Your task to perform on an android device: Go to accessibility settings Image 0: 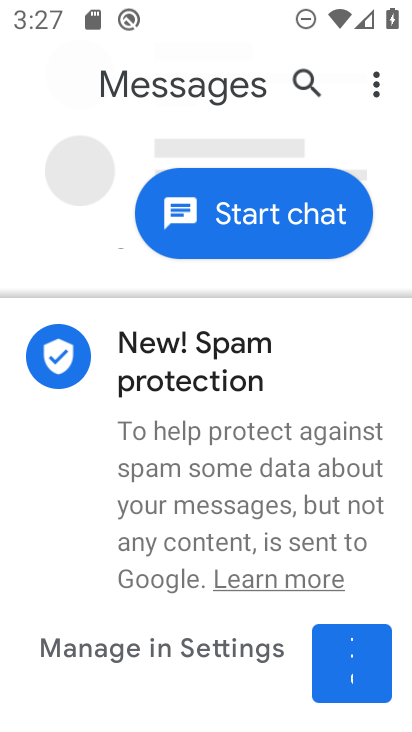
Step 0: press home button
Your task to perform on an android device: Go to accessibility settings Image 1: 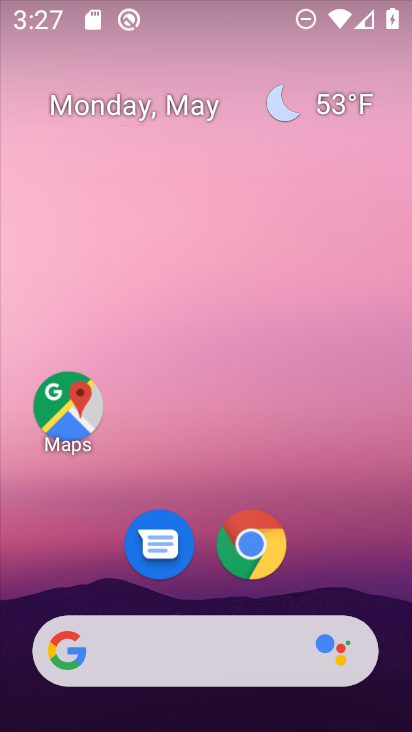
Step 1: drag from (130, 498) to (140, 54)
Your task to perform on an android device: Go to accessibility settings Image 2: 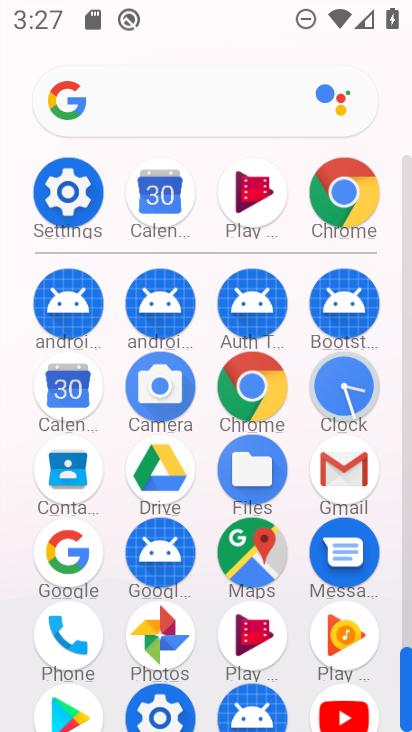
Step 2: click (56, 213)
Your task to perform on an android device: Go to accessibility settings Image 3: 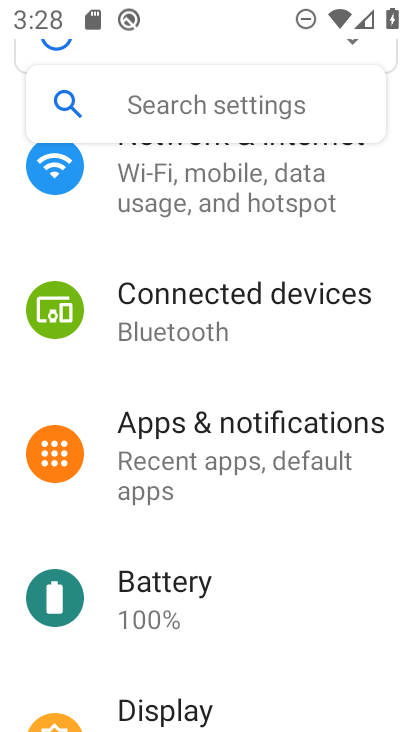
Step 3: drag from (257, 602) to (316, 130)
Your task to perform on an android device: Go to accessibility settings Image 4: 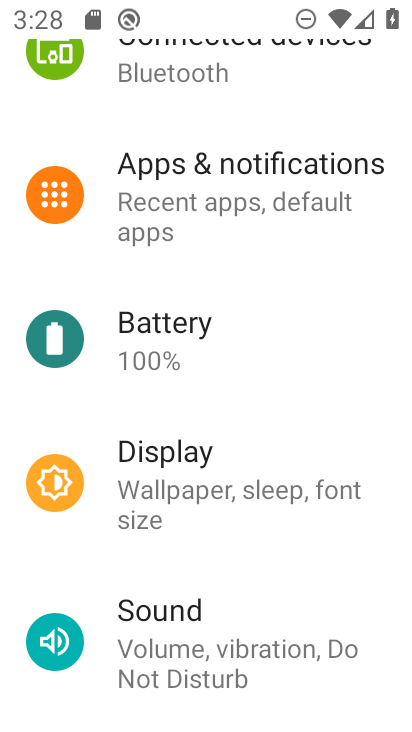
Step 4: drag from (191, 641) to (129, 190)
Your task to perform on an android device: Go to accessibility settings Image 5: 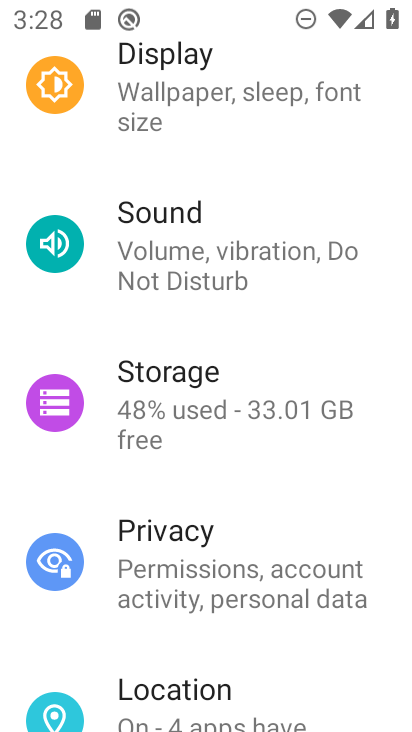
Step 5: drag from (266, 671) to (256, 83)
Your task to perform on an android device: Go to accessibility settings Image 6: 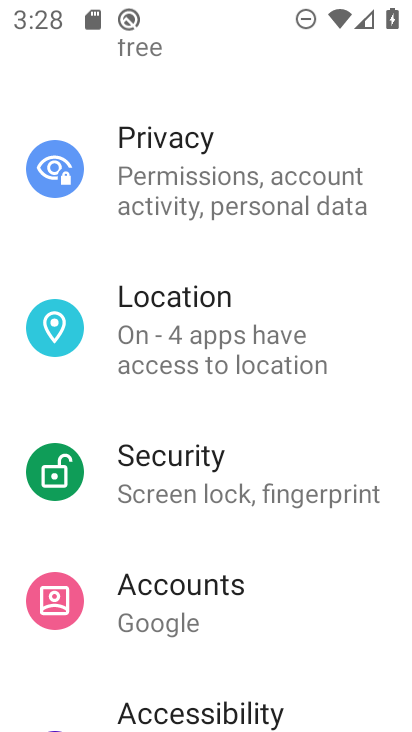
Step 6: click (264, 716)
Your task to perform on an android device: Go to accessibility settings Image 7: 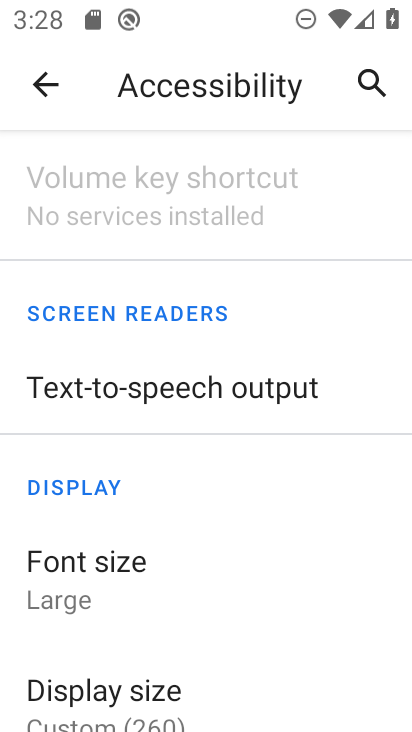
Step 7: task complete